Your task to perform on an android device: toggle notification dots Image 0: 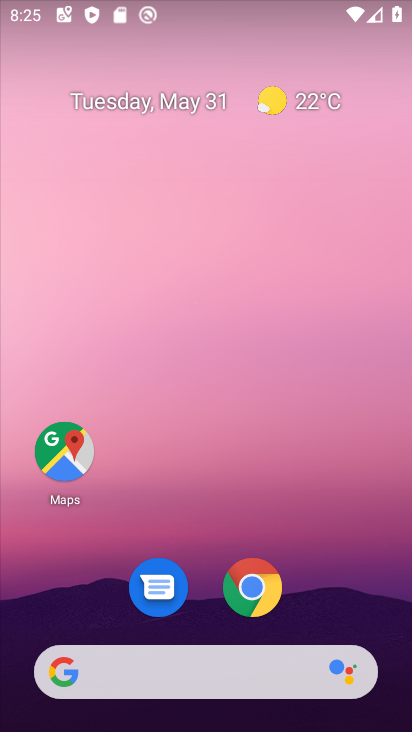
Step 0: drag from (202, 637) to (246, 37)
Your task to perform on an android device: toggle notification dots Image 1: 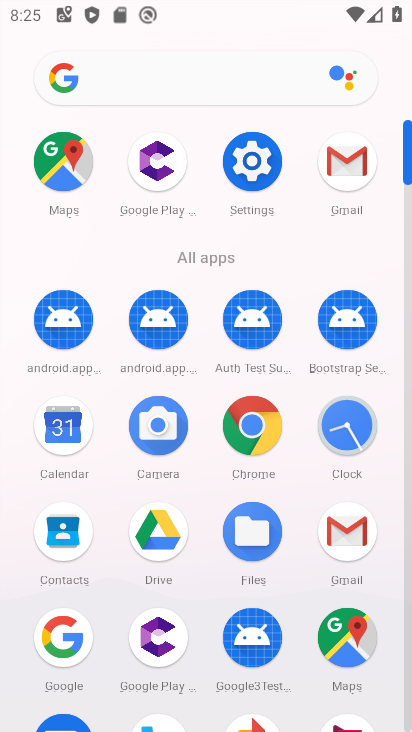
Step 1: click (357, 167)
Your task to perform on an android device: toggle notification dots Image 2: 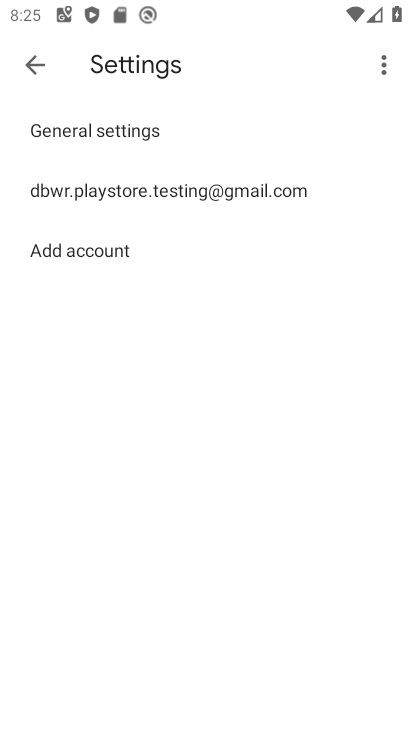
Step 2: press home button
Your task to perform on an android device: toggle notification dots Image 3: 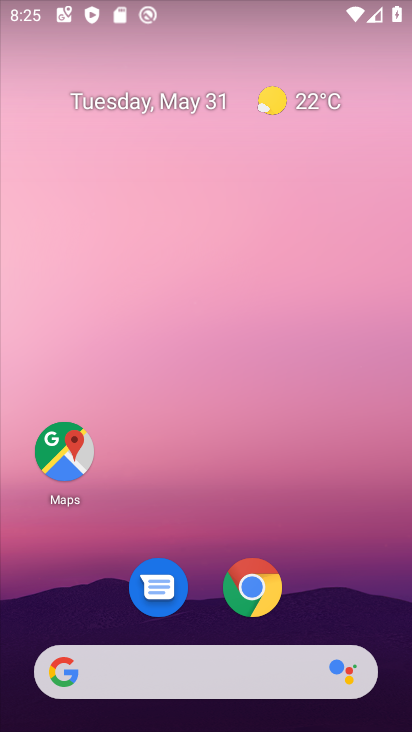
Step 3: drag from (219, 586) to (195, 102)
Your task to perform on an android device: toggle notification dots Image 4: 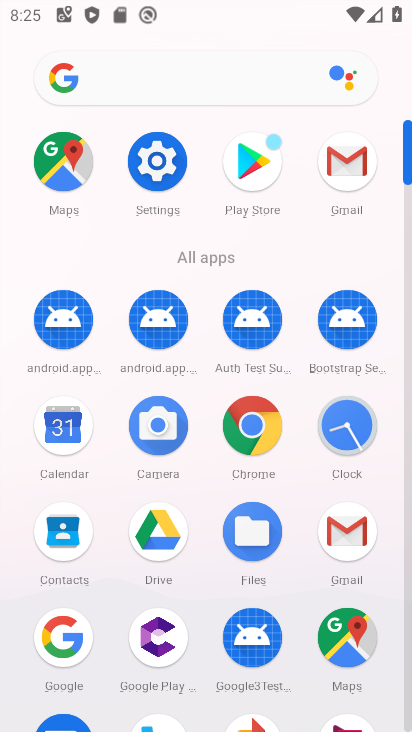
Step 4: click (156, 152)
Your task to perform on an android device: toggle notification dots Image 5: 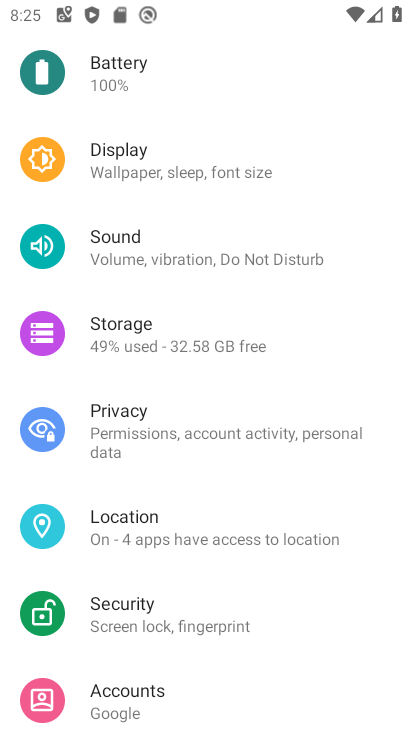
Step 5: drag from (124, 612) to (197, 112)
Your task to perform on an android device: toggle notification dots Image 6: 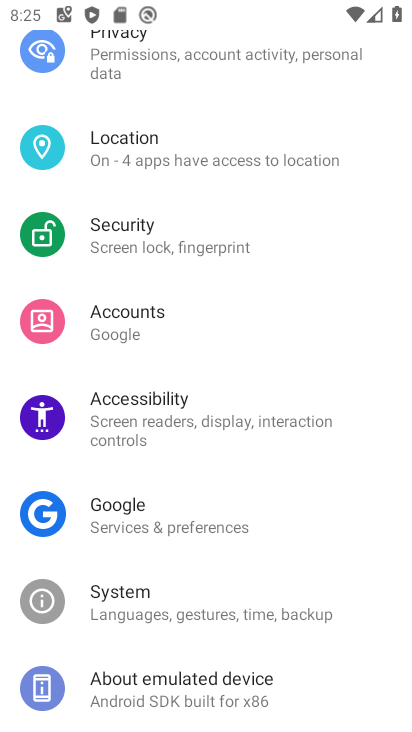
Step 6: drag from (207, 128) to (163, 662)
Your task to perform on an android device: toggle notification dots Image 7: 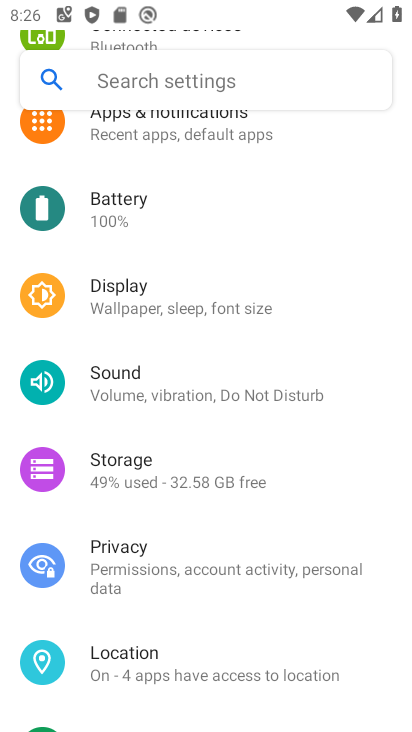
Step 7: click (207, 135)
Your task to perform on an android device: toggle notification dots Image 8: 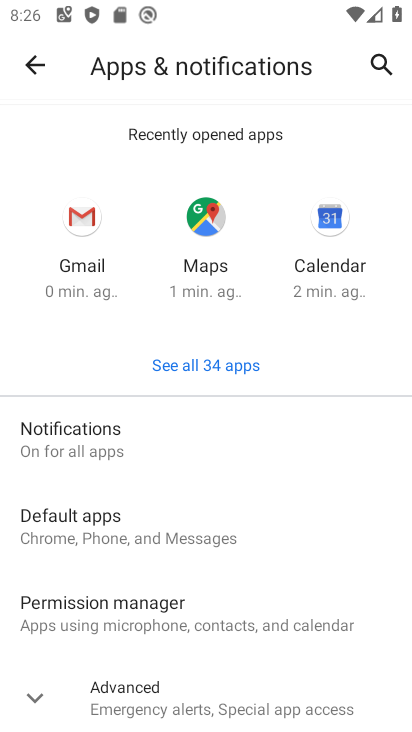
Step 8: click (108, 664)
Your task to perform on an android device: toggle notification dots Image 9: 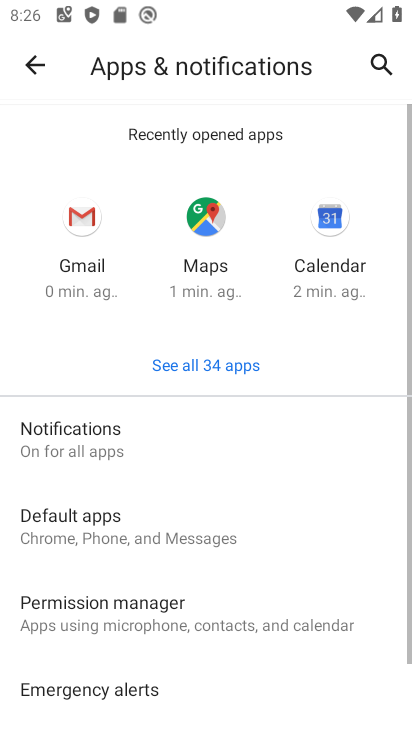
Step 9: drag from (108, 664) to (252, 152)
Your task to perform on an android device: toggle notification dots Image 10: 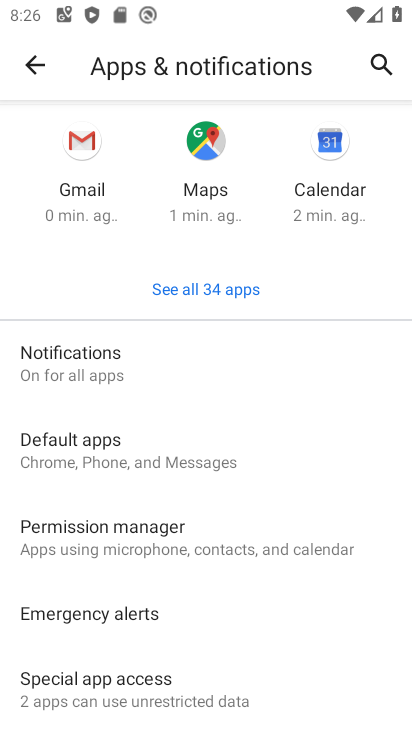
Step 10: click (135, 353)
Your task to perform on an android device: toggle notification dots Image 11: 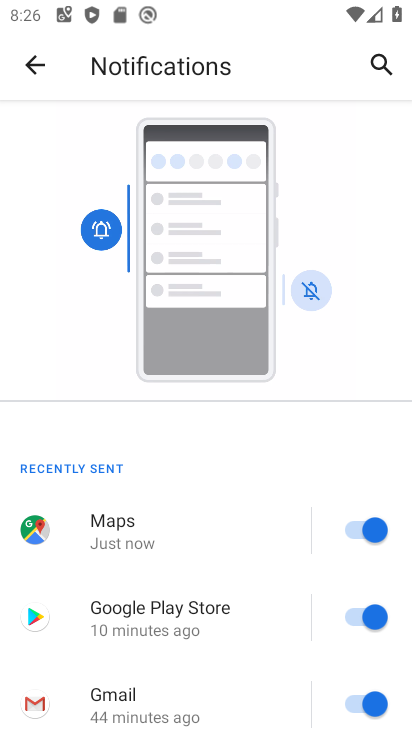
Step 11: drag from (168, 632) to (221, 90)
Your task to perform on an android device: toggle notification dots Image 12: 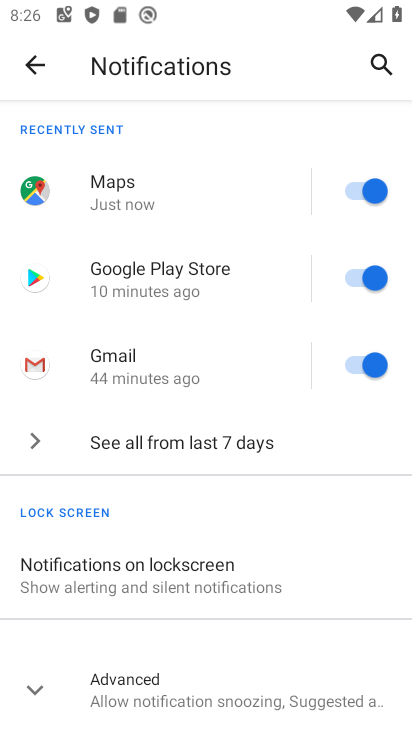
Step 12: click (144, 681)
Your task to perform on an android device: toggle notification dots Image 13: 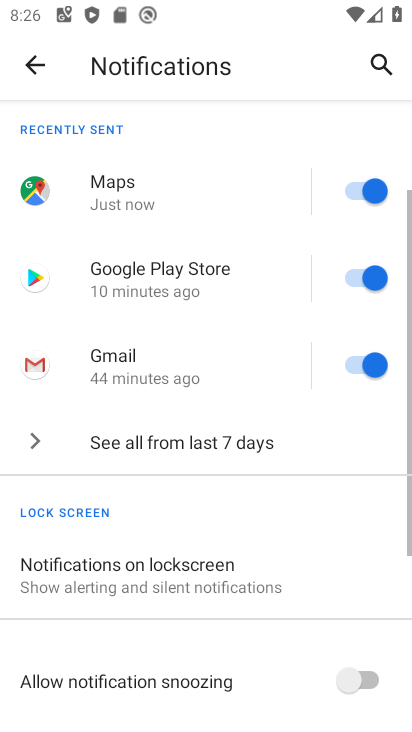
Step 13: drag from (201, 630) to (235, 80)
Your task to perform on an android device: toggle notification dots Image 14: 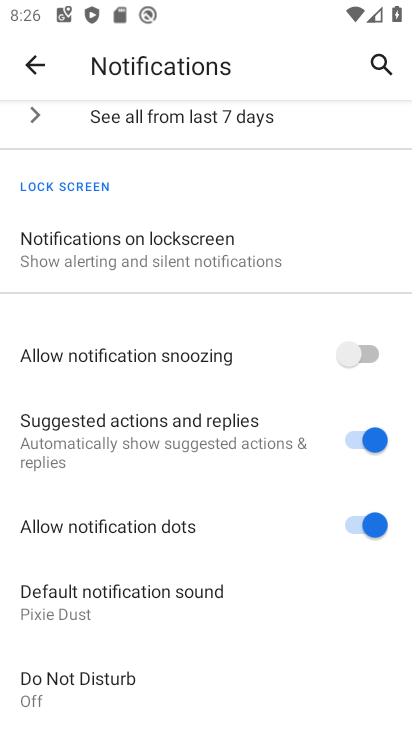
Step 14: click (360, 531)
Your task to perform on an android device: toggle notification dots Image 15: 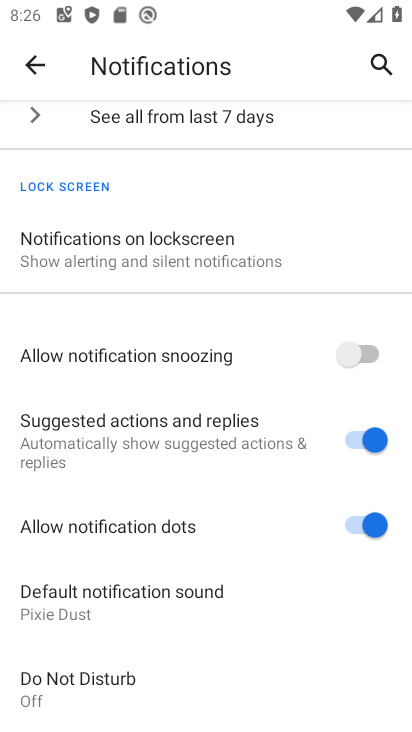
Step 15: click (360, 531)
Your task to perform on an android device: toggle notification dots Image 16: 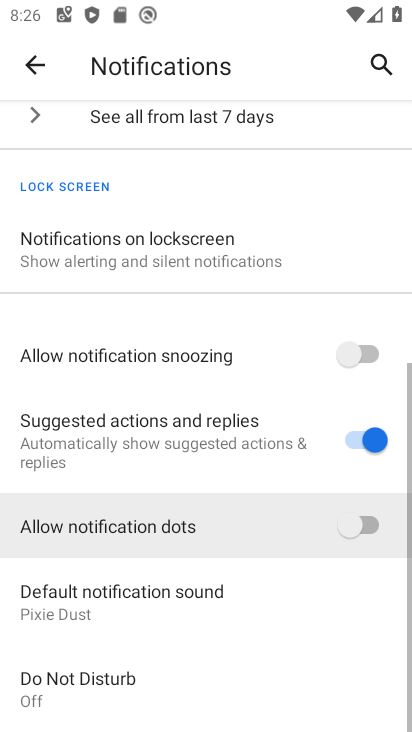
Step 16: click (360, 531)
Your task to perform on an android device: toggle notification dots Image 17: 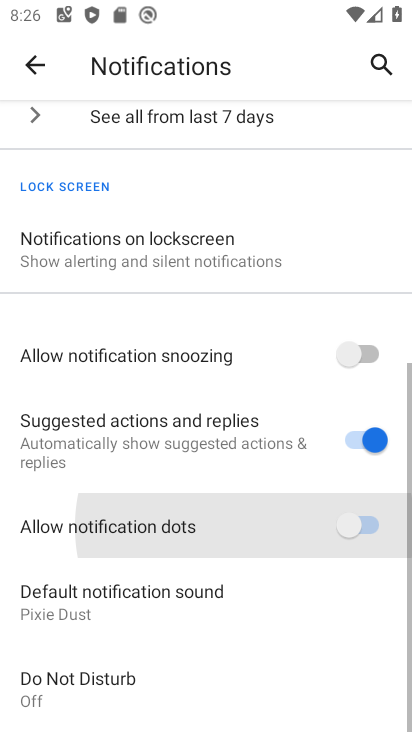
Step 17: click (360, 531)
Your task to perform on an android device: toggle notification dots Image 18: 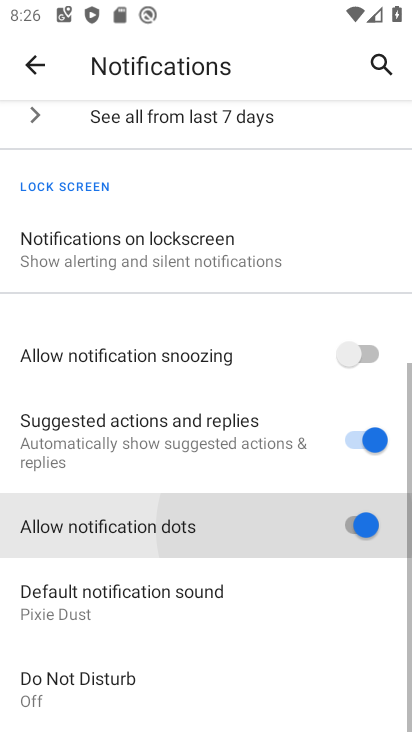
Step 18: click (360, 531)
Your task to perform on an android device: toggle notification dots Image 19: 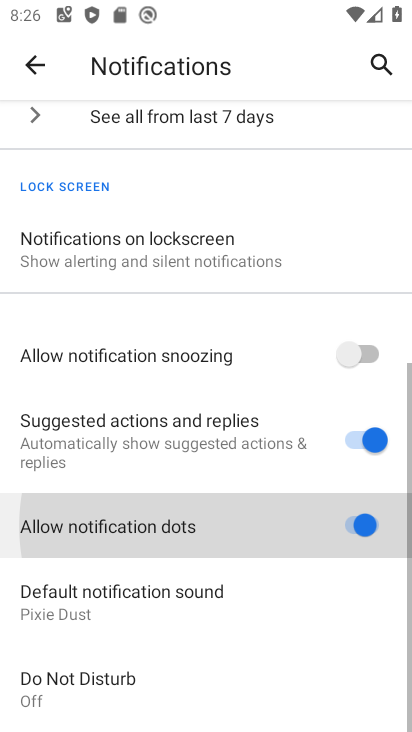
Step 19: click (360, 531)
Your task to perform on an android device: toggle notification dots Image 20: 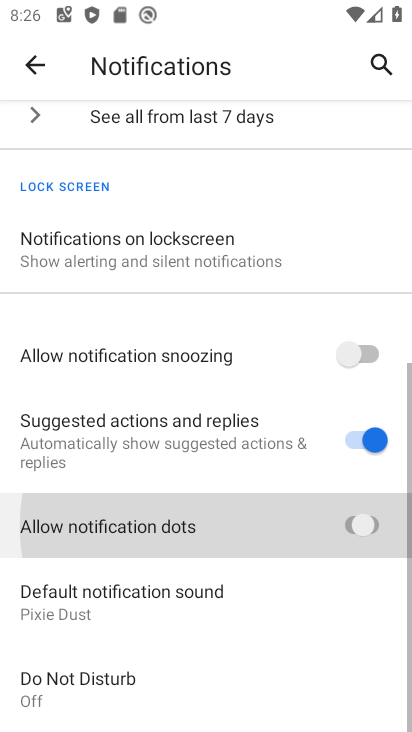
Step 20: click (360, 531)
Your task to perform on an android device: toggle notification dots Image 21: 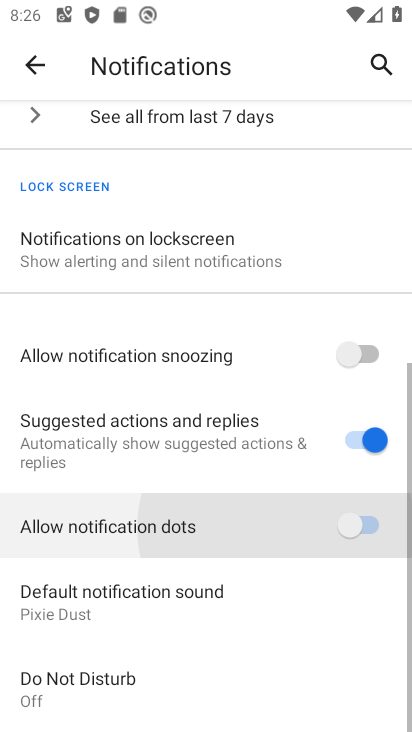
Step 21: click (360, 531)
Your task to perform on an android device: toggle notification dots Image 22: 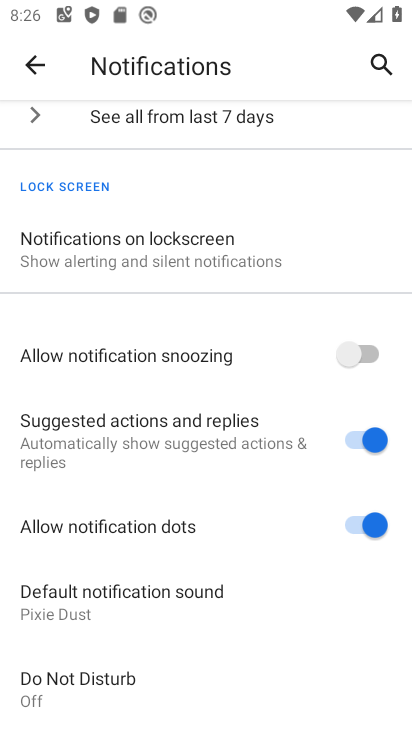
Step 22: task complete